Your task to perform on an android device: open a new tab in the chrome app Image 0: 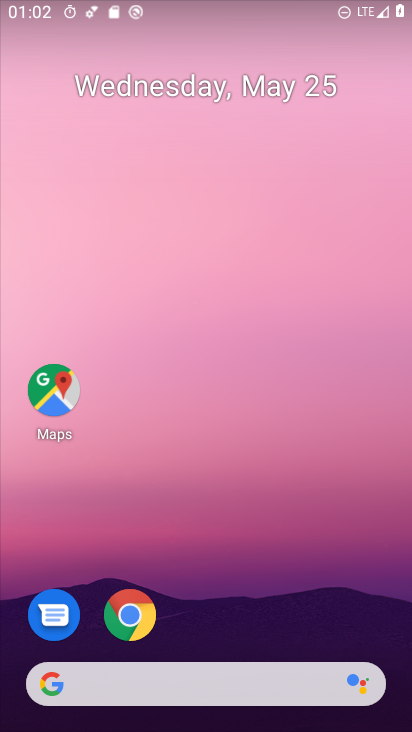
Step 0: drag from (231, 718) to (299, 167)
Your task to perform on an android device: open a new tab in the chrome app Image 1: 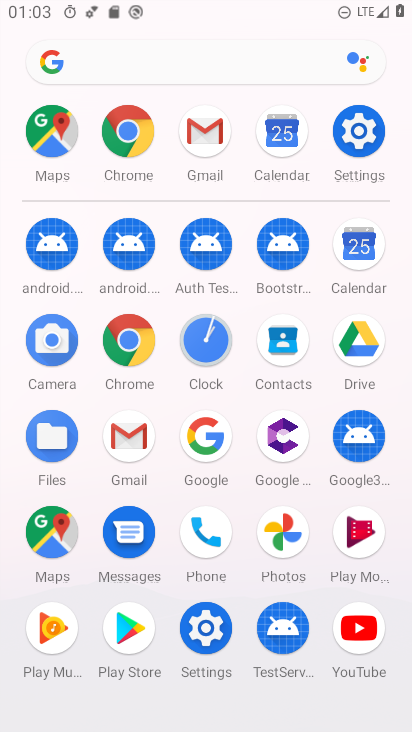
Step 1: click (121, 336)
Your task to perform on an android device: open a new tab in the chrome app Image 2: 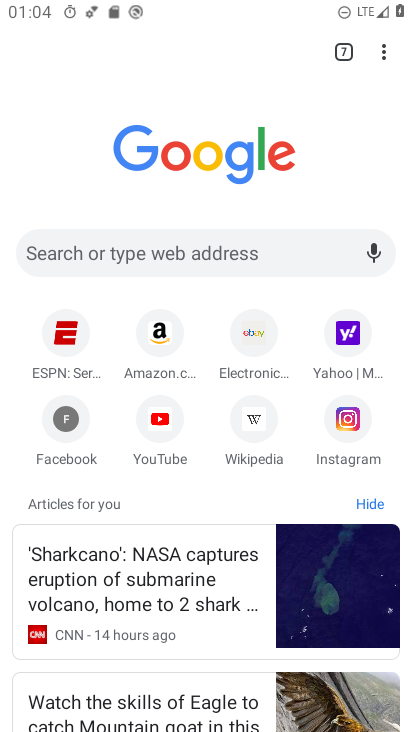
Step 2: click (345, 47)
Your task to perform on an android device: open a new tab in the chrome app Image 3: 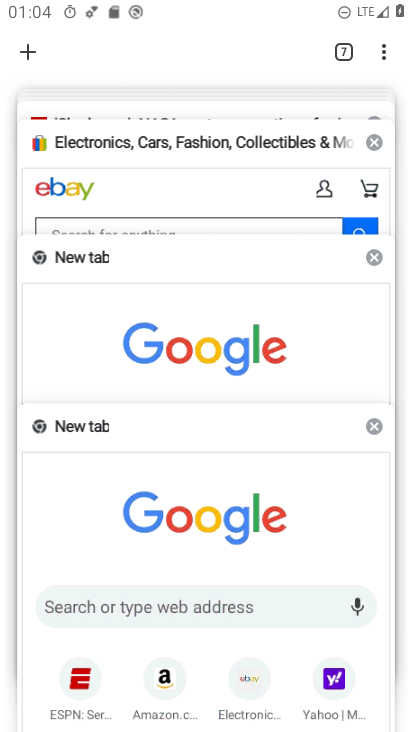
Step 3: click (35, 49)
Your task to perform on an android device: open a new tab in the chrome app Image 4: 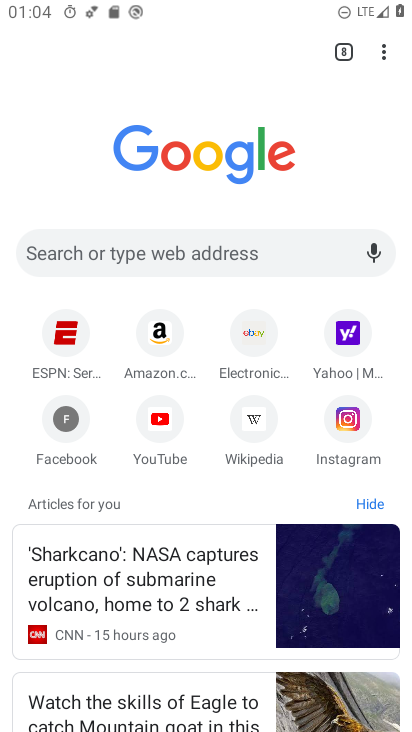
Step 4: task complete